Your task to perform on an android device: search for starred emails in the gmail app Image 0: 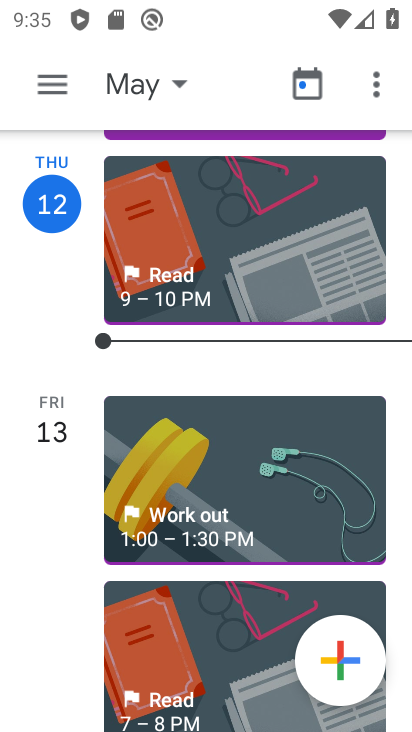
Step 0: press home button
Your task to perform on an android device: search for starred emails in the gmail app Image 1: 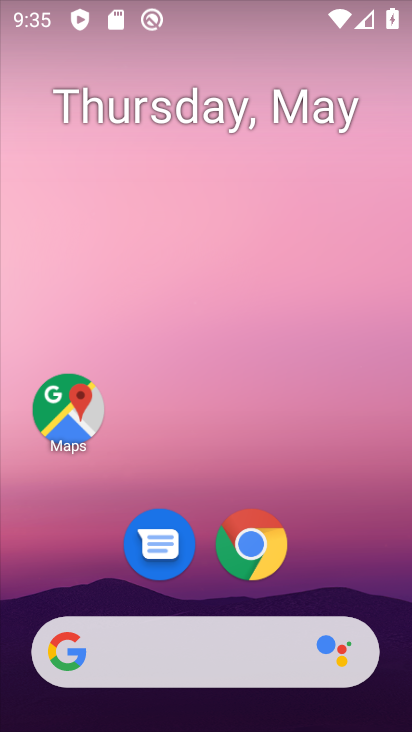
Step 1: drag from (115, 574) to (152, 221)
Your task to perform on an android device: search for starred emails in the gmail app Image 2: 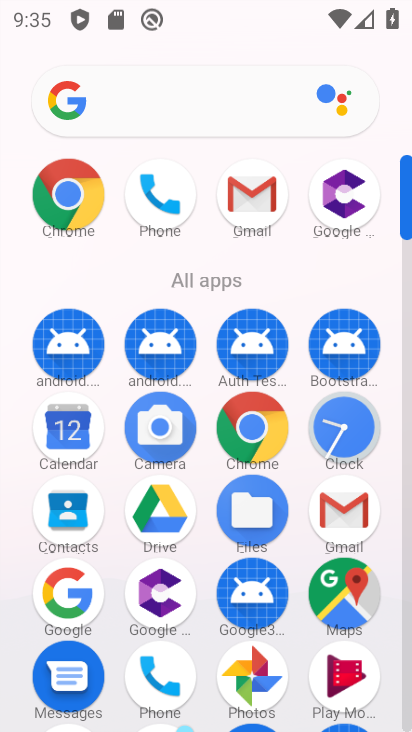
Step 2: click (245, 197)
Your task to perform on an android device: search for starred emails in the gmail app Image 3: 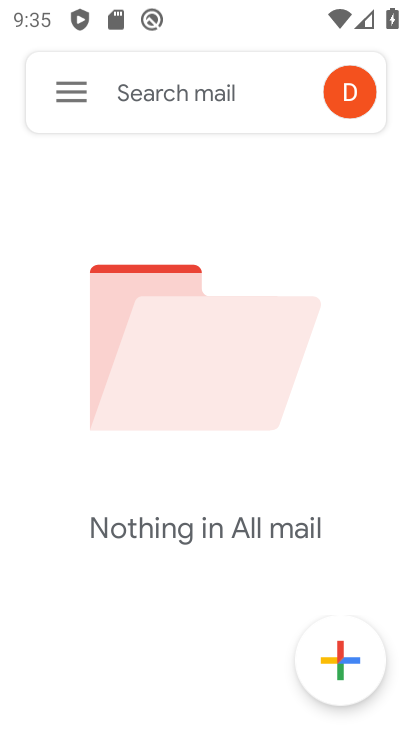
Step 3: click (67, 94)
Your task to perform on an android device: search for starred emails in the gmail app Image 4: 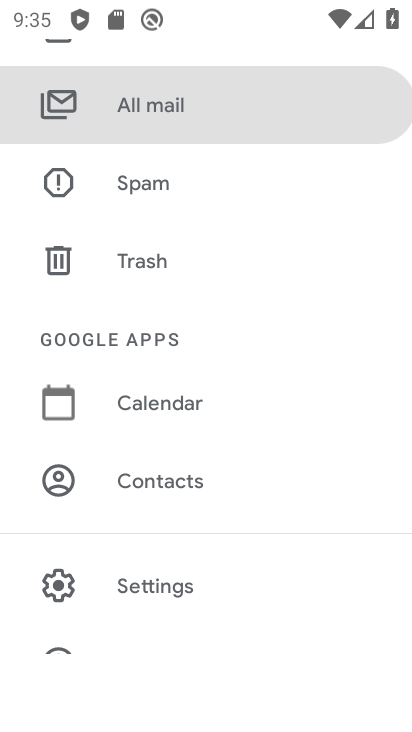
Step 4: drag from (140, 551) to (209, 312)
Your task to perform on an android device: search for starred emails in the gmail app Image 5: 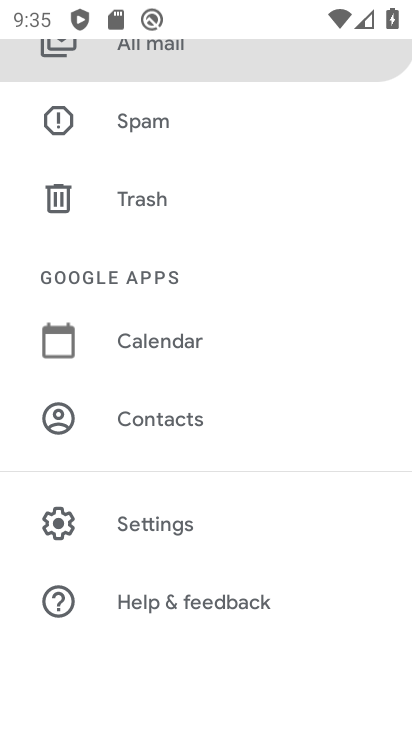
Step 5: drag from (192, 188) to (156, 589)
Your task to perform on an android device: search for starred emails in the gmail app Image 6: 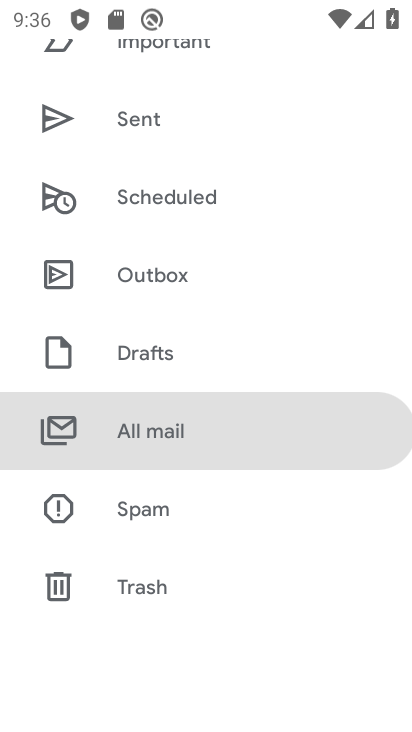
Step 6: drag from (210, 136) to (212, 454)
Your task to perform on an android device: search for starred emails in the gmail app Image 7: 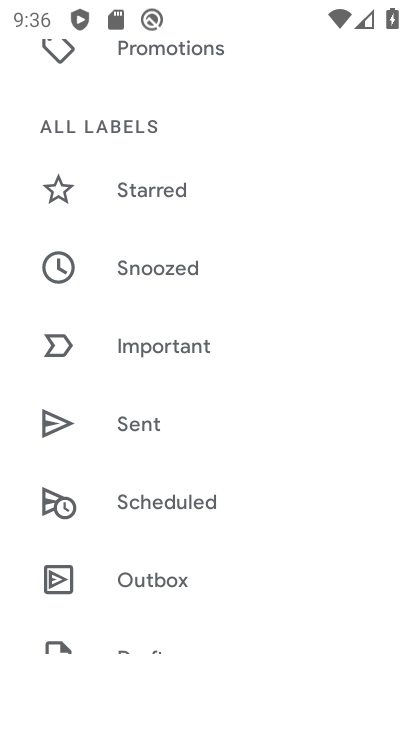
Step 7: click (144, 193)
Your task to perform on an android device: search for starred emails in the gmail app Image 8: 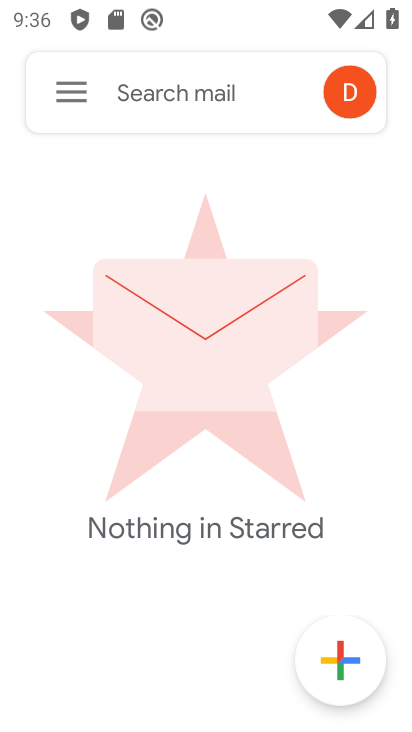
Step 8: task complete